Your task to perform on an android device: turn on showing notifications on the lock screen Image 0: 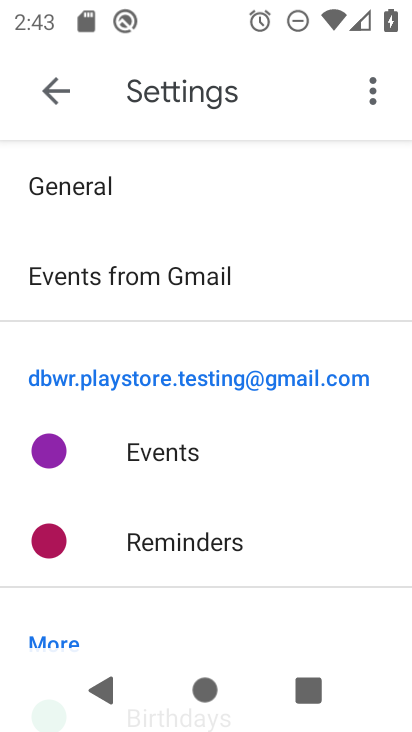
Step 0: press home button
Your task to perform on an android device: turn on showing notifications on the lock screen Image 1: 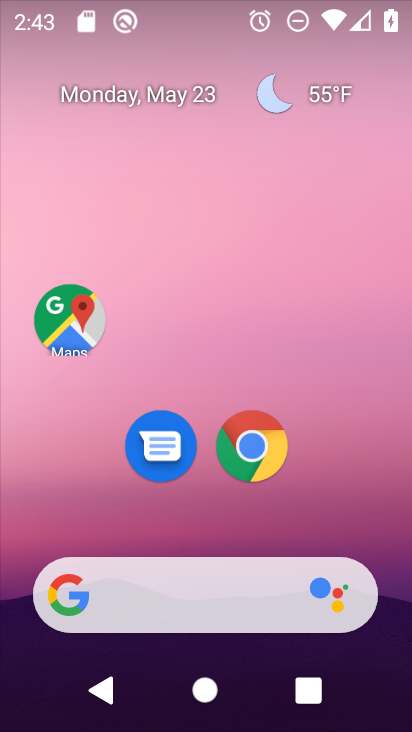
Step 1: drag from (214, 517) to (259, 130)
Your task to perform on an android device: turn on showing notifications on the lock screen Image 2: 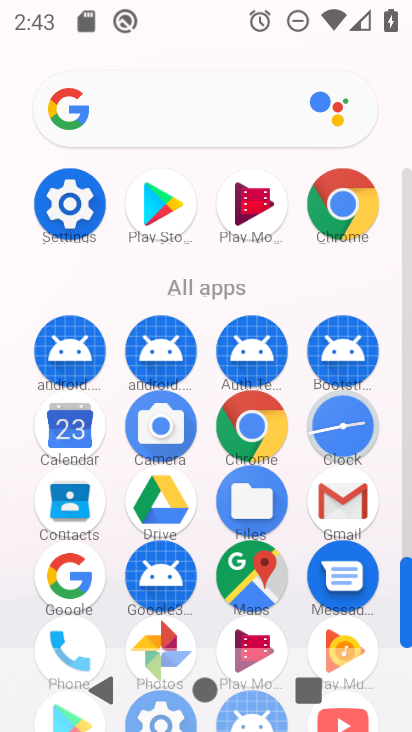
Step 2: click (80, 200)
Your task to perform on an android device: turn on showing notifications on the lock screen Image 3: 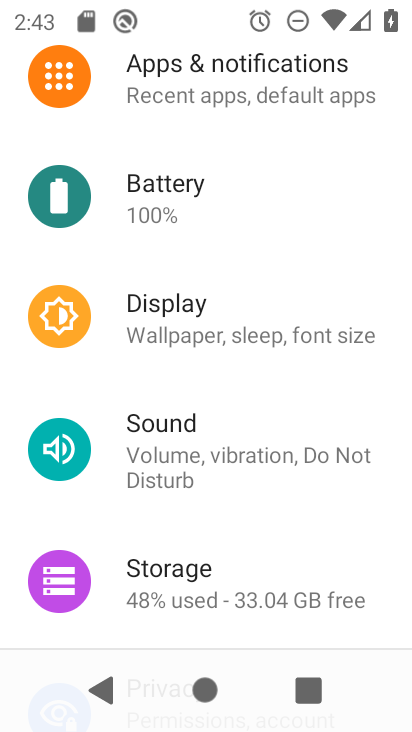
Step 3: click (246, 514)
Your task to perform on an android device: turn on showing notifications on the lock screen Image 4: 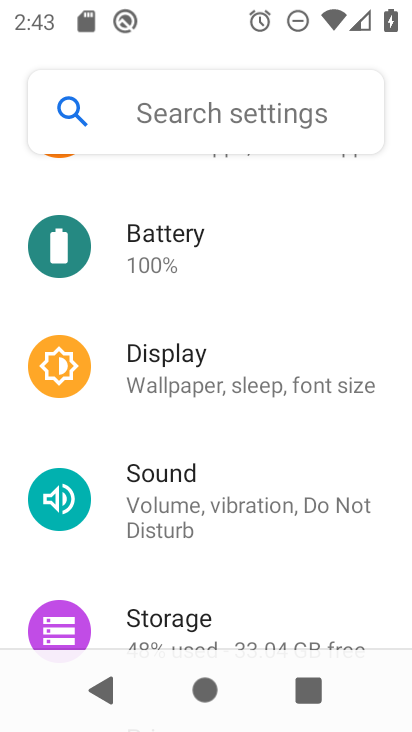
Step 4: drag from (241, 244) to (253, 461)
Your task to perform on an android device: turn on showing notifications on the lock screen Image 5: 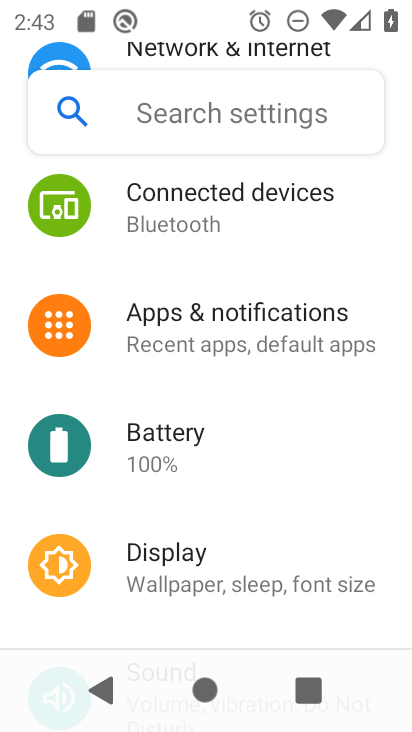
Step 5: click (248, 333)
Your task to perform on an android device: turn on showing notifications on the lock screen Image 6: 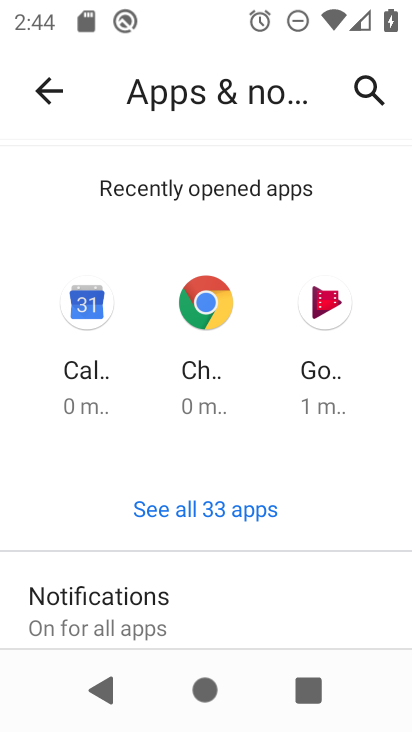
Step 6: drag from (201, 573) to (231, 396)
Your task to perform on an android device: turn on showing notifications on the lock screen Image 7: 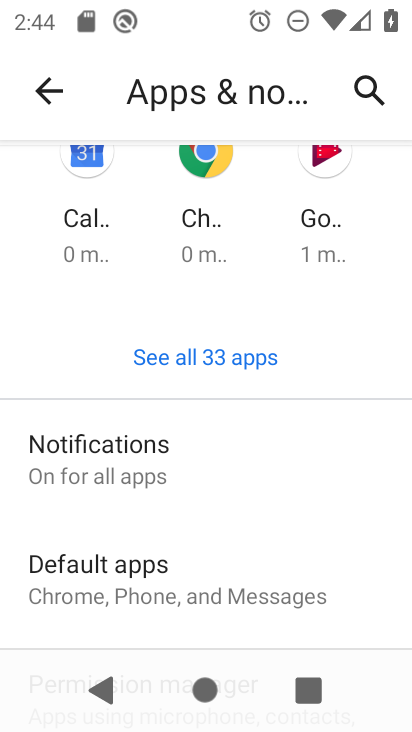
Step 7: click (187, 442)
Your task to perform on an android device: turn on showing notifications on the lock screen Image 8: 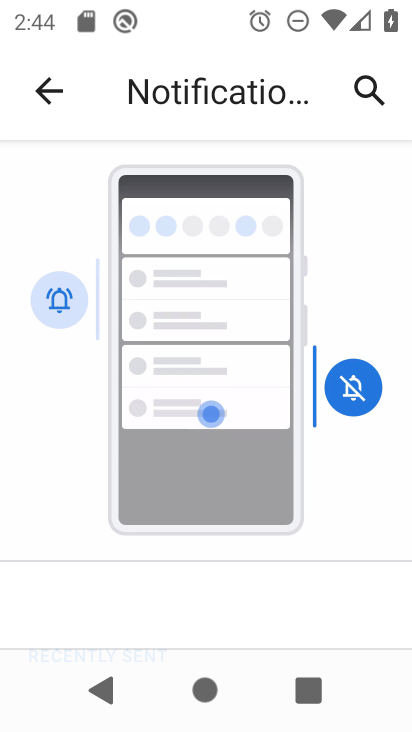
Step 8: drag from (201, 559) to (219, 230)
Your task to perform on an android device: turn on showing notifications on the lock screen Image 9: 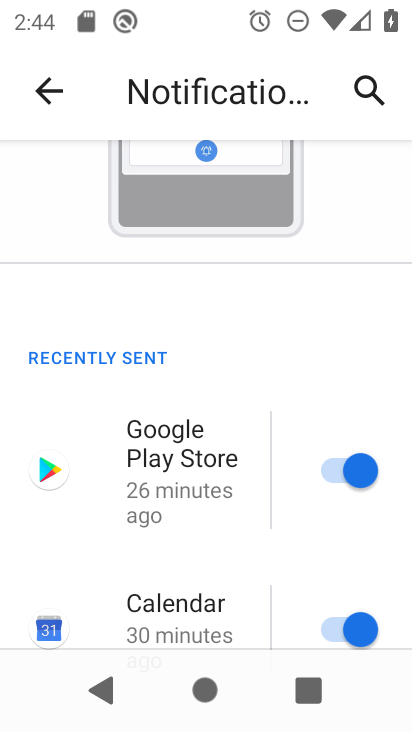
Step 9: drag from (209, 385) to (189, 176)
Your task to perform on an android device: turn on showing notifications on the lock screen Image 10: 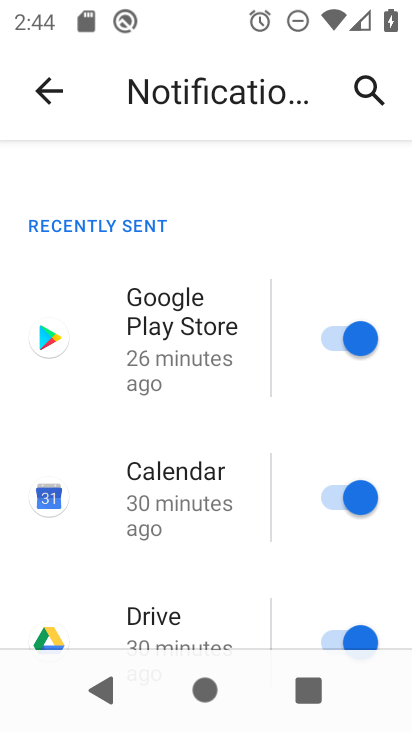
Step 10: drag from (176, 529) to (196, 209)
Your task to perform on an android device: turn on showing notifications on the lock screen Image 11: 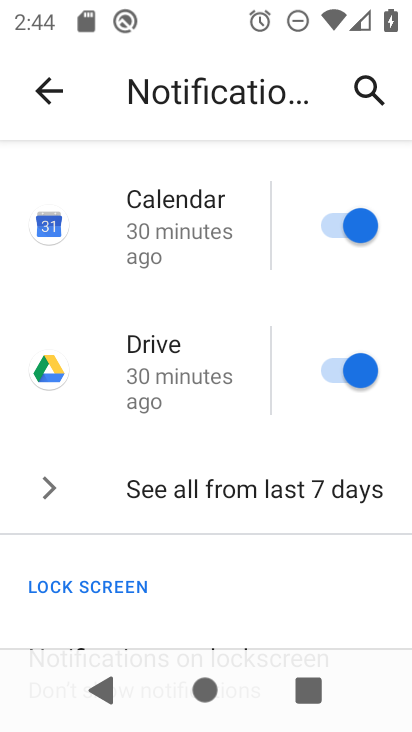
Step 11: drag from (190, 552) to (203, 266)
Your task to perform on an android device: turn on showing notifications on the lock screen Image 12: 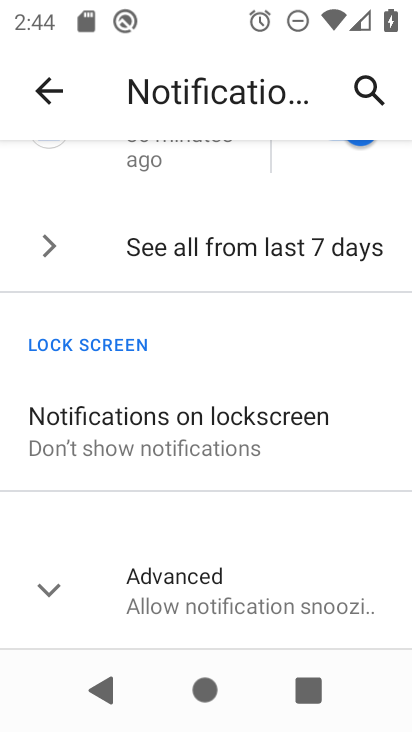
Step 12: click (203, 441)
Your task to perform on an android device: turn on showing notifications on the lock screen Image 13: 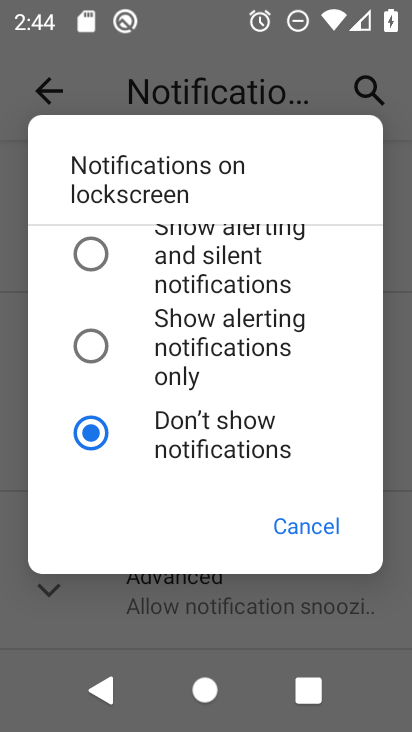
Step 13: click (99, 253)
Your task to perform on an android device: turn on showing notifications on the lock screen Image 14: 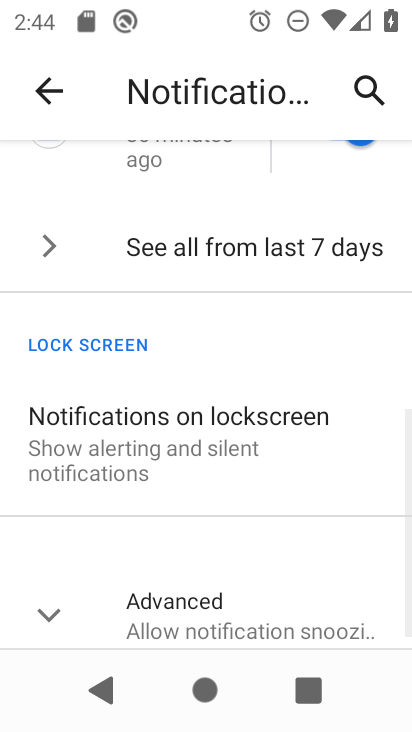
Step 14: task complete